Your task to perform on an android device: Open notification settings Image 0: 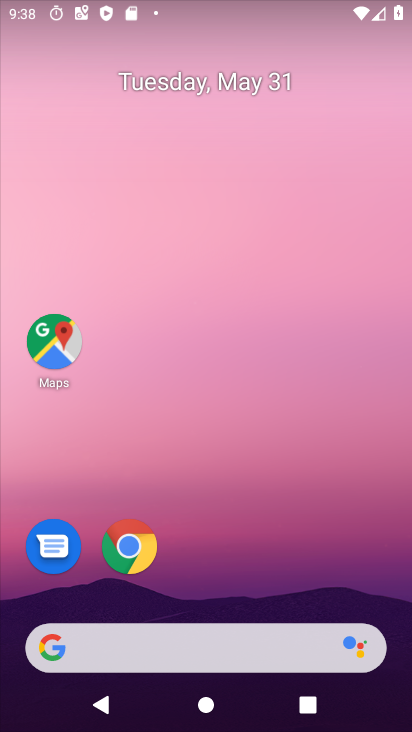
Step 0: drag from (228, 598) to (229, 235)
Your task to perform on an android device: Open notification settings Image 1: 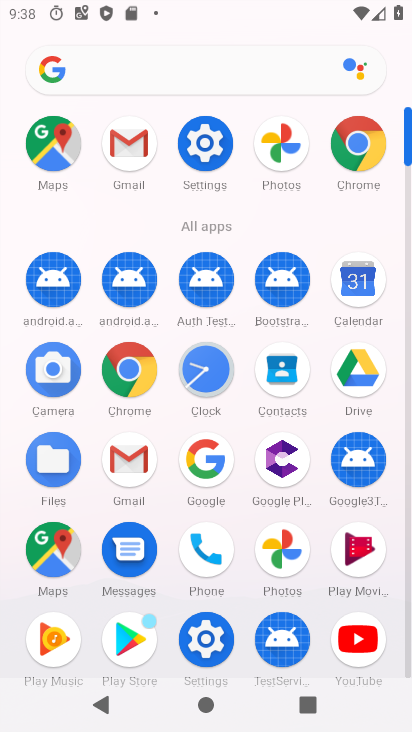
Step 1: click (206, 139)
Your task to perform on an android device: Open notification settings Image 2: 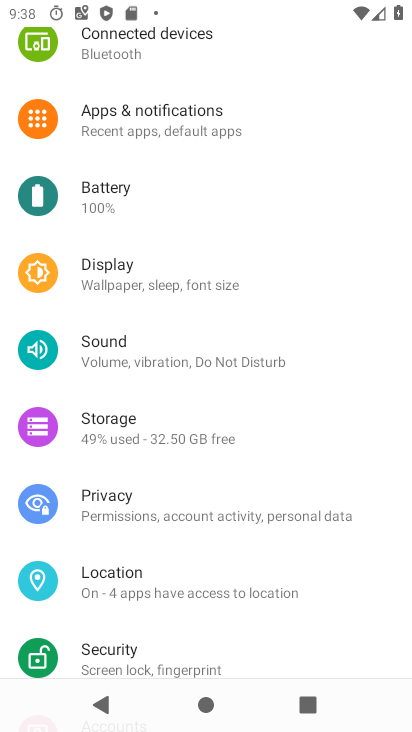
Step 2: click (190, 126)
Your task to perform on an android device: Open notification settings Image 3: 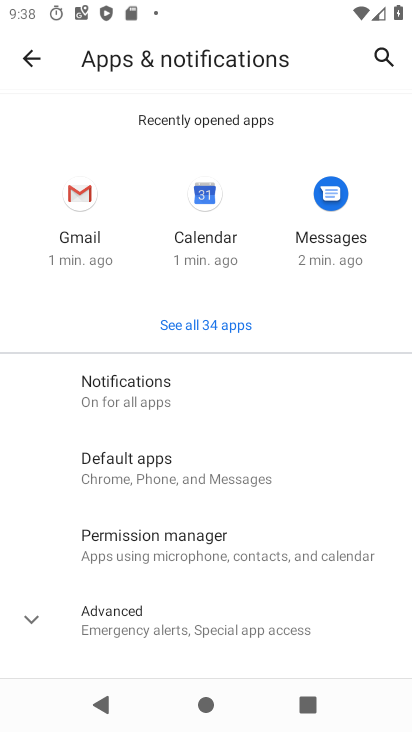
Step 3: task complete